Your task to perform on an android device: Turn off the flashlight Image 0: 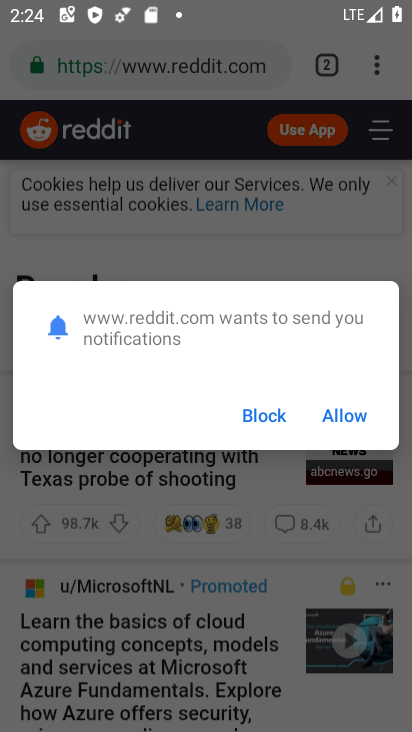
Step 0: press home button
Your task to perform on an android device: Turn off the flashlight Image 1: 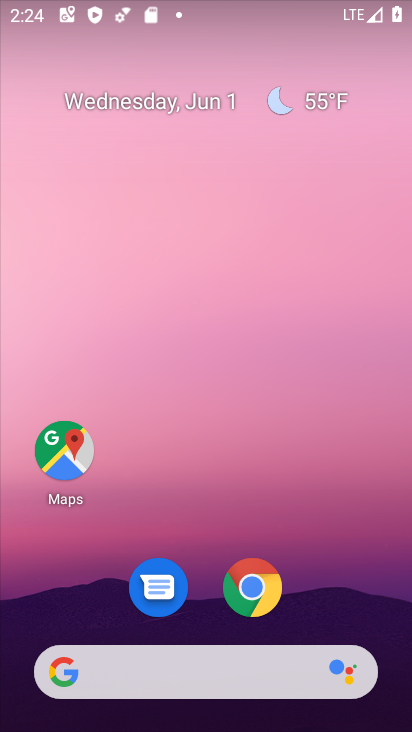
Step 1: task complete